Your task to perform on an android device: turn on improve location accuracy Image 0: 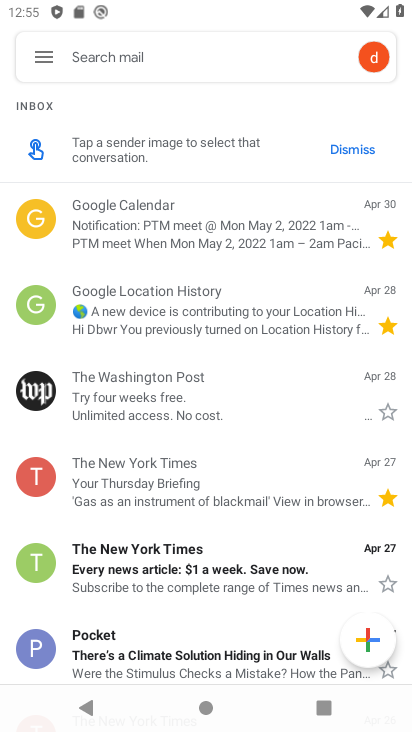
Step 0: press home button
Your task to perform on an android device: turn on improve location accuracy Image 1: 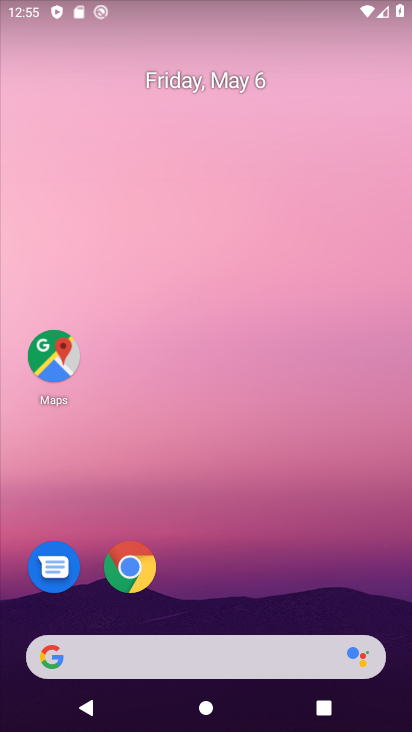
Step 1: drag from (240, 643) to (173, 362)
Your task to perform on an android device: turn on improve location accuracy Image 2: 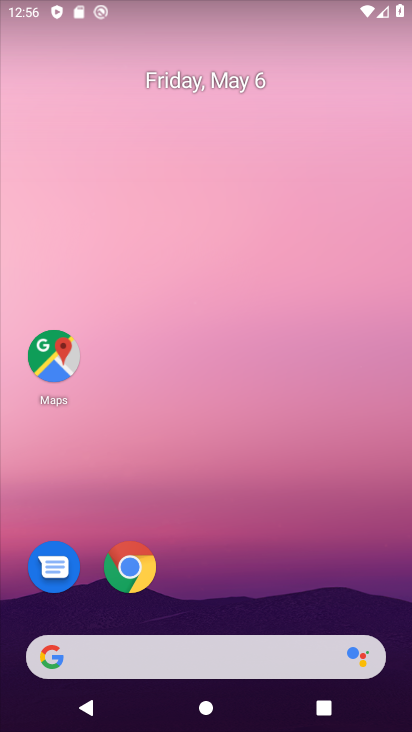
Step 2: drag from (266, 688) to (186, 226)
Your task to perform on an android device: turn on improve location accuracy Image 3: 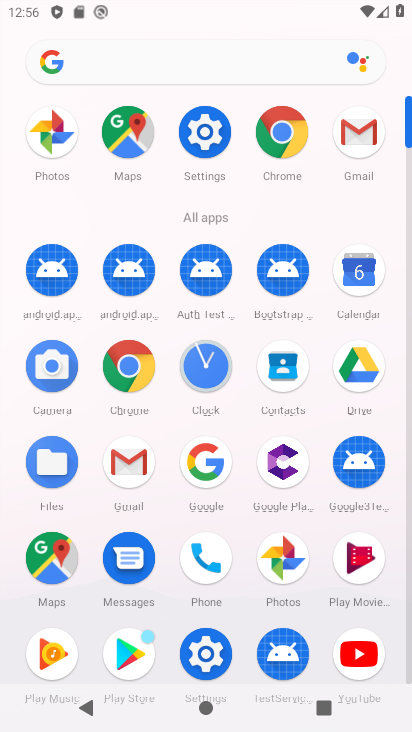
Step 3: click (190, 156)
Your task to perform on an android device: turn on improve location accuracy Image 4: 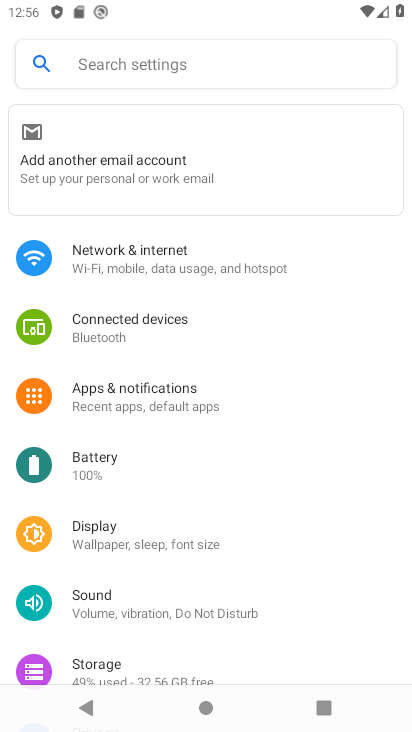
Step 4: click (136, 70)
Your task to perform on an android device: turn on improve location accuracy Image 5: 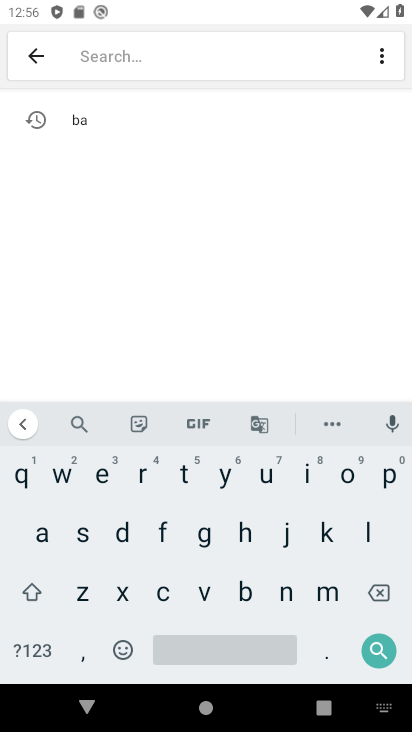
Step 5: click (372, 539)
Your task to perform on an android device: turn on improve location accuracy Image 6: 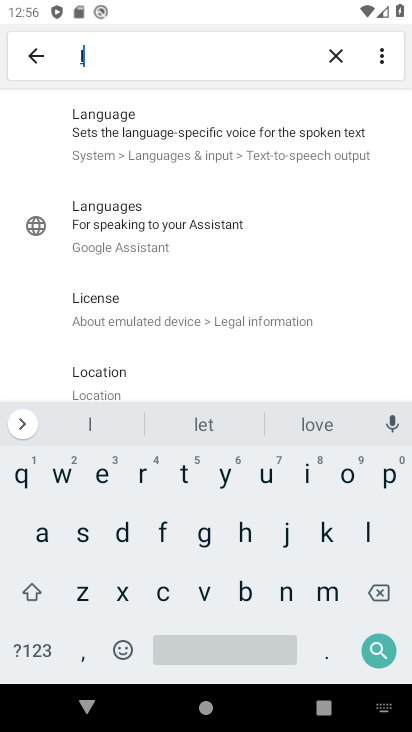
Step 6: click (162, 370)
Your task to perform on an android device: turn on improve location accuracy Image 7: 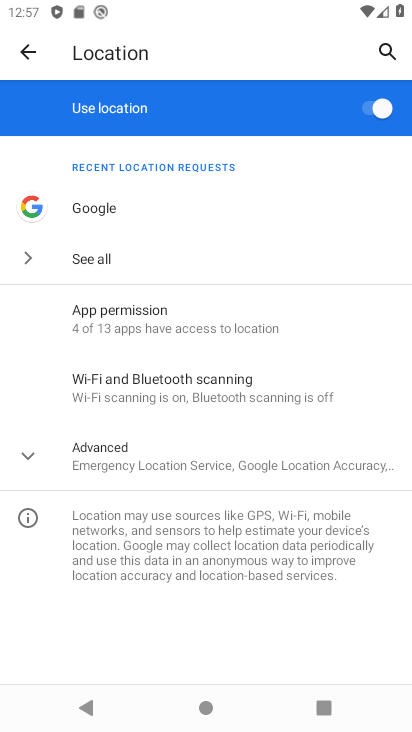
Step 7: click (70, 463)
Your task to perform on an android device: turn on improve location accuracy Image 8: 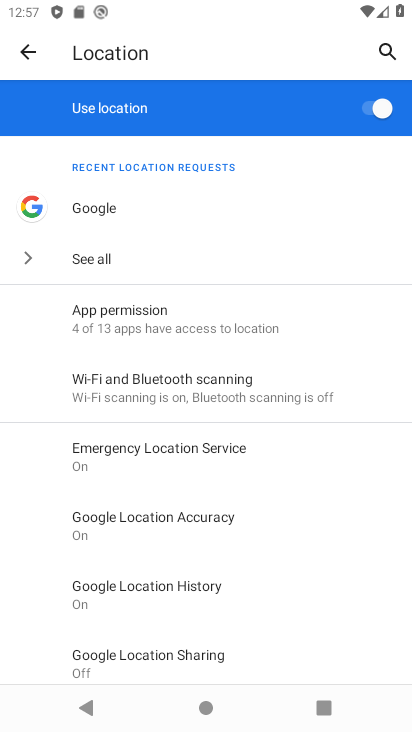
Step 8: click (204, 522)
Your task to perform on an android device: turn on improve location accuracy Image 9: 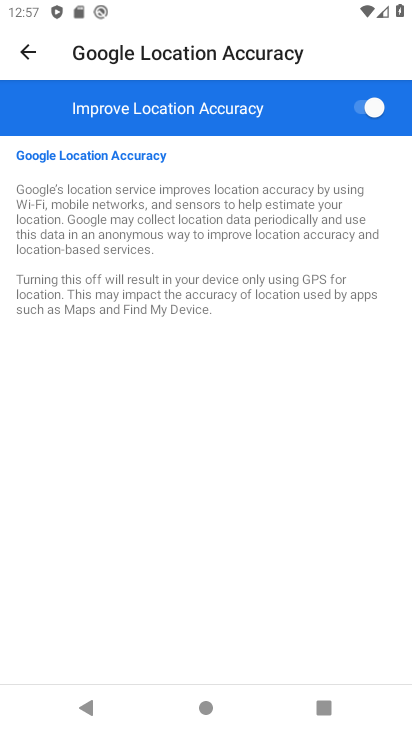
Step 9: click (367, 112)
Your task to perform on an android device: turn on improve location accuracy Image 10: 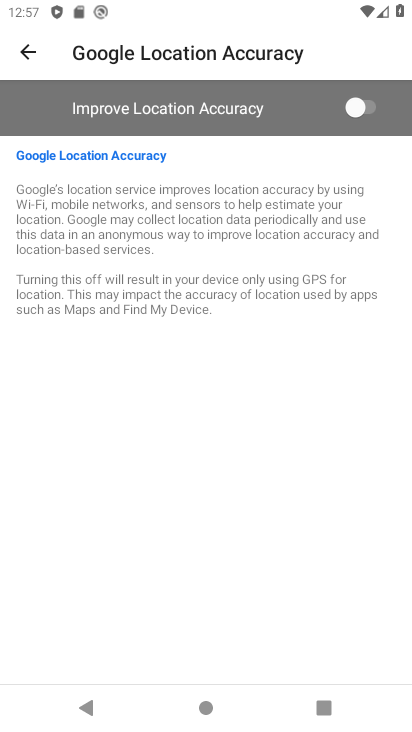
Step 10: click (364, 117)
Your task to perform on an android device: turn on improve location accuracy Image 11: 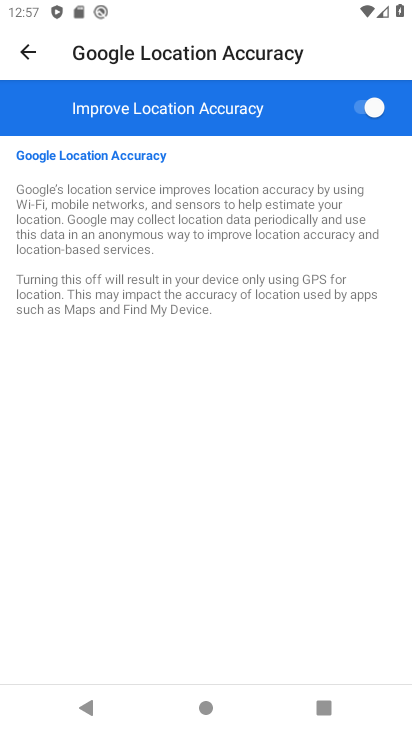
Step 11: task complete